Your task to perform on an android device: Open the Play Movies app and select the watchlist tab. Image 0: 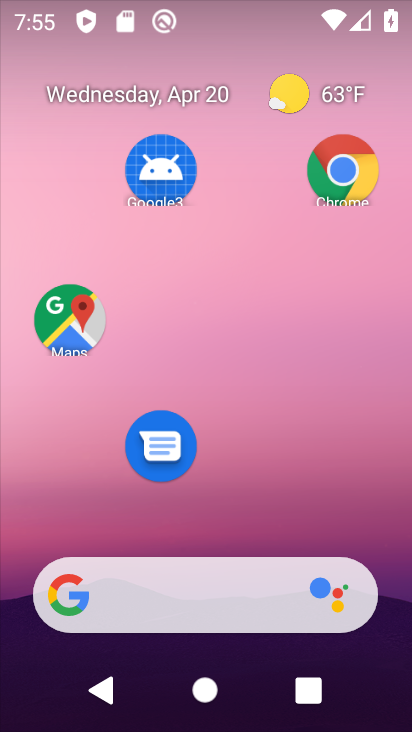
Step 0: drag from (202, 519) to (156, 63)
Your task to perform on an android device: Open the Play Movies app and select the watchlist tab. Image 1: 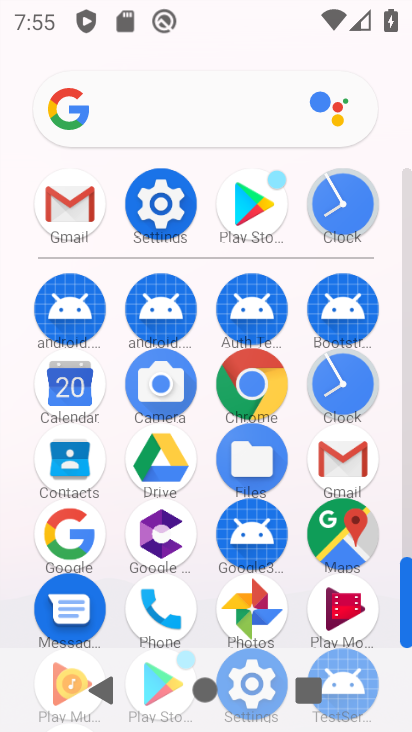
Step 1: click (336, 611)
Your task to perform on an android device: Open the Play Movies app and select the watchlist tab. Image 2: 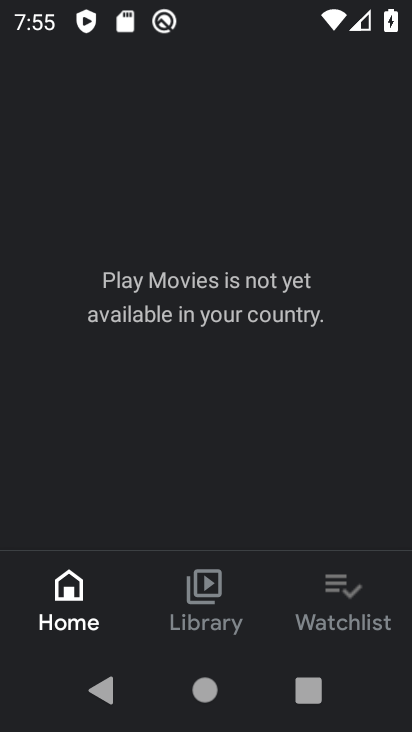
Step 2: click (339, 583)
Your task to perform on an android device: Open the Play Movies app and select the watchlist tab. Image 3: 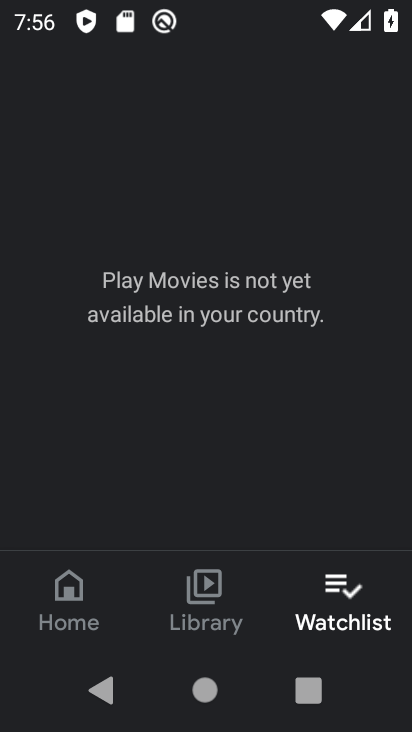
Step 3: task complete